Your task to perform on an android device: turn off wifi Image 0: 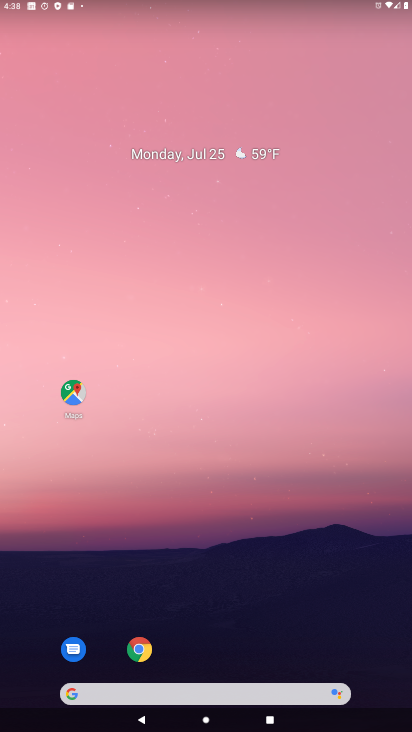
Step 0: drag from (298, 629) to (225, 95)
Your task to perform on an android device: turn off wifi Image 1: 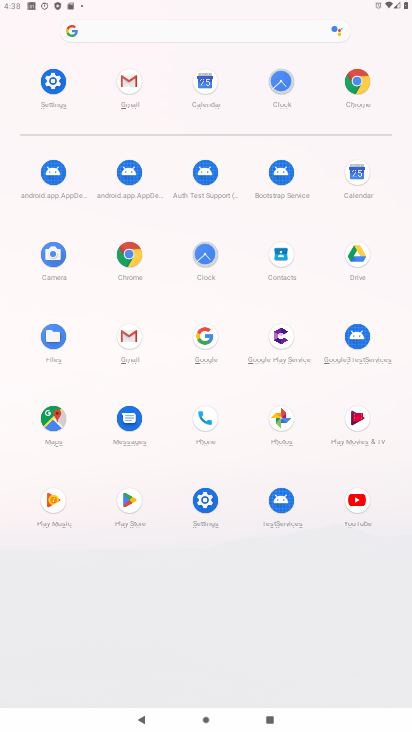
Step 1: click (50, 84)
Your task to perform on an android device: turn off wifi Image 2: 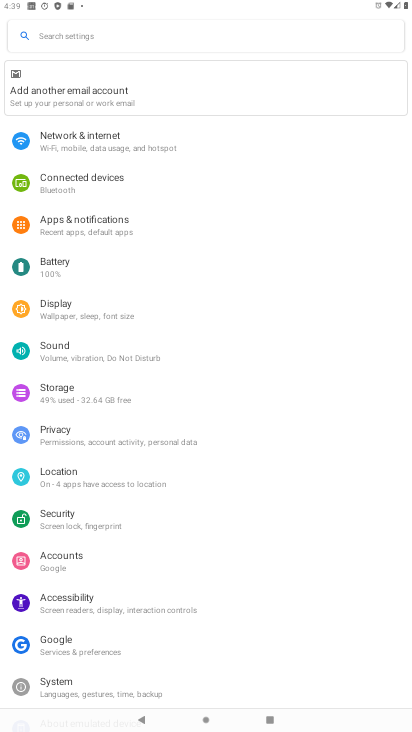
Step 2: click (124, 135)
Your task to perform on an android device: turn off wifi Image 3: 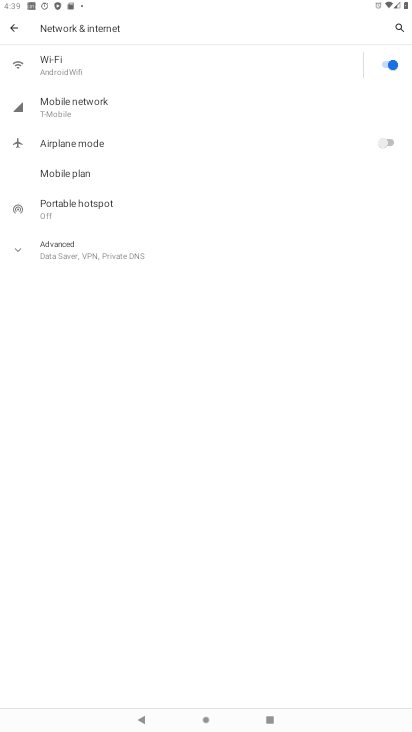
Step 3: click (388, 66)
Your task to perform on an android device: turn off wifi Image 4: 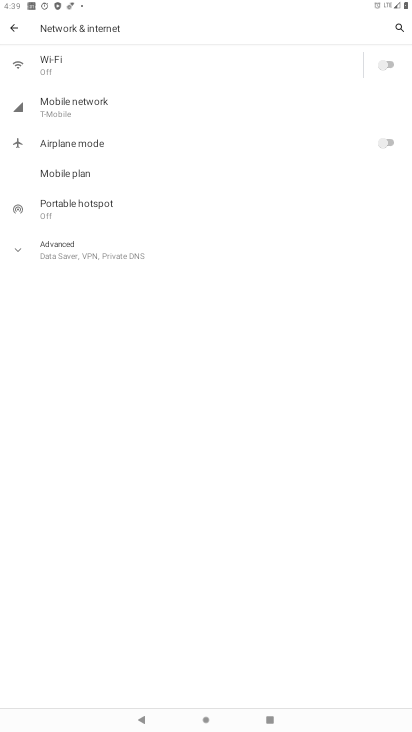
Step 4: task complete